Your task to perform on an android device: toggle airplane mode Image 0: 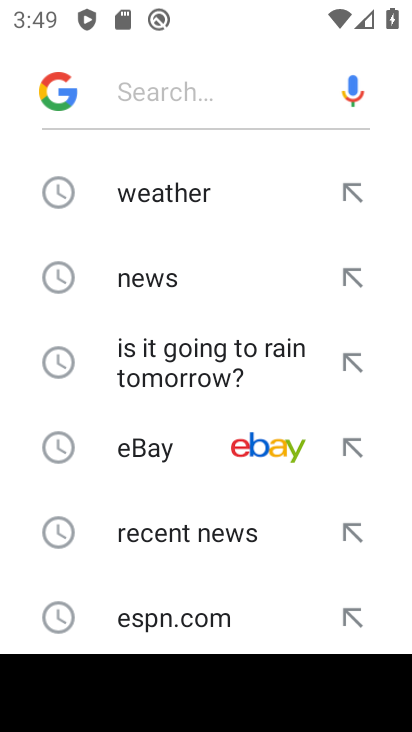
Step 0: press back button
Your task to perform on an android device: toggle airplane mode Image 1: 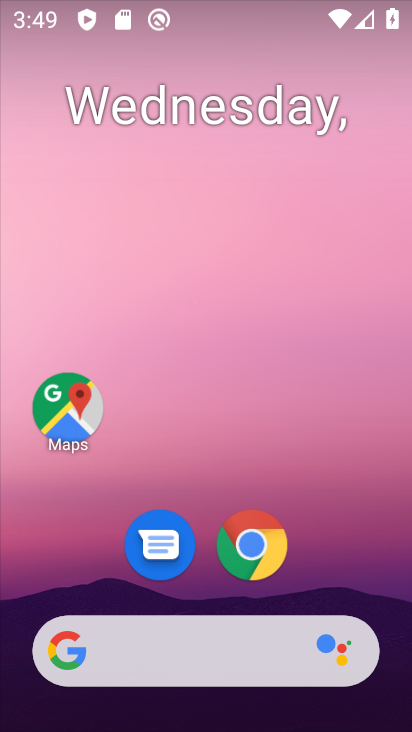
Step 1: drag from (330, 546) to (409, 64)
Your task to perform on an android device: toggle airplane mode Image 2: 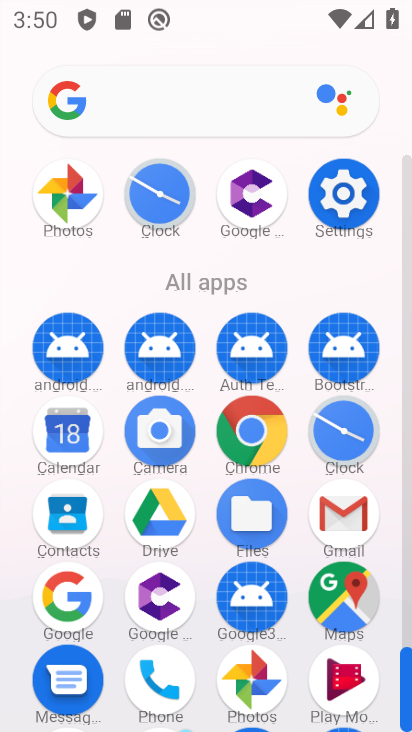
Step 2: click (344, 192)
Your task to perform on an android device: toggle airplane mode Image 3: 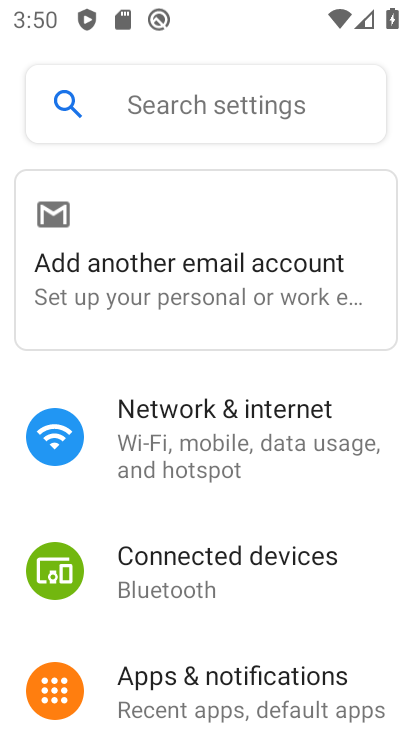
Step 3: drag from (249, 480) to (267, 378)
Your task to perform on an android device: toggle airplane mode Image 4: 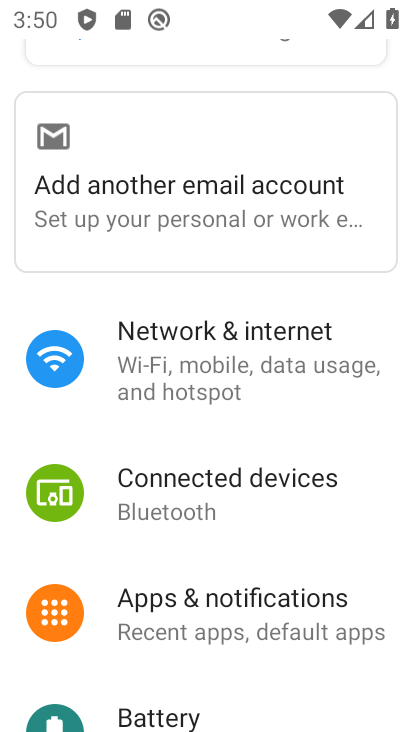
Step 4: click (224, 331)
Your task to perform on an android device: toggle airplane mode Image 5: 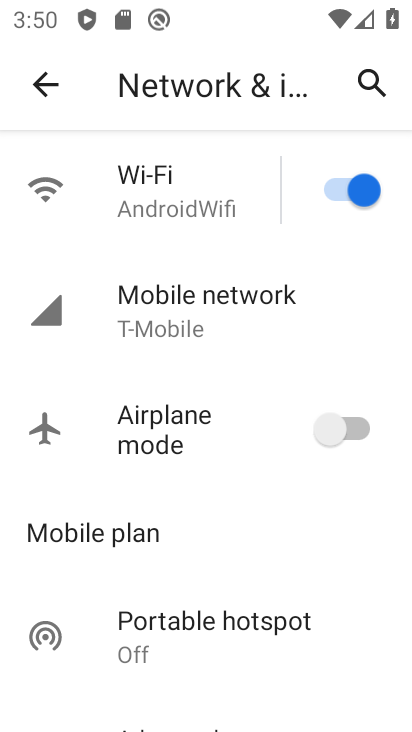
Step 5: click (331, 434)
Your task to perform on an android device: toggle airplane mode Image 6: 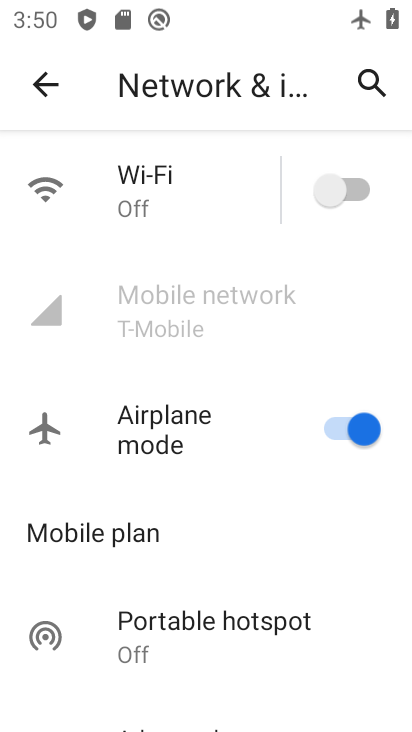
Step 6: task complete